Your task to perform on an android device: set an alarm Image 0: 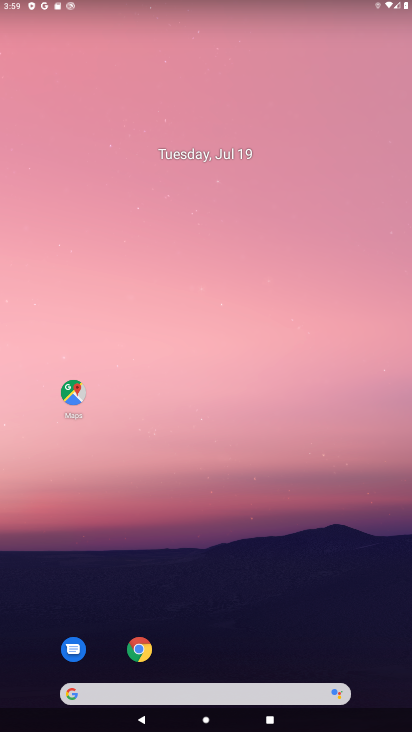
Step 0: drag from (284, 609) to (182, 100)
Your task to perform on an android device: set an alarm Image 1: 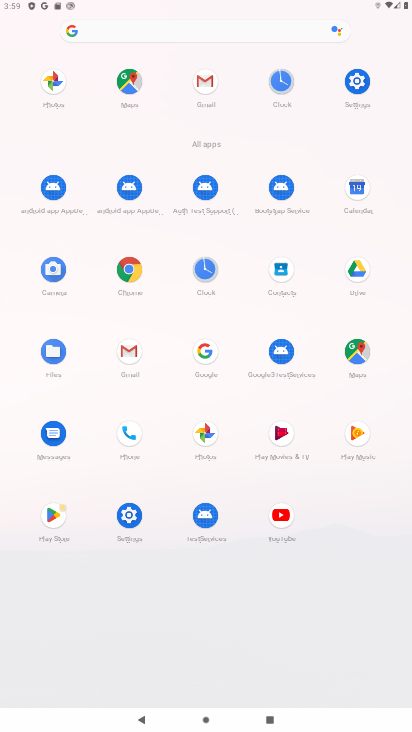
Step 1: click (286, 83)
Your task to perform on an android device: set an alarm Image 2: 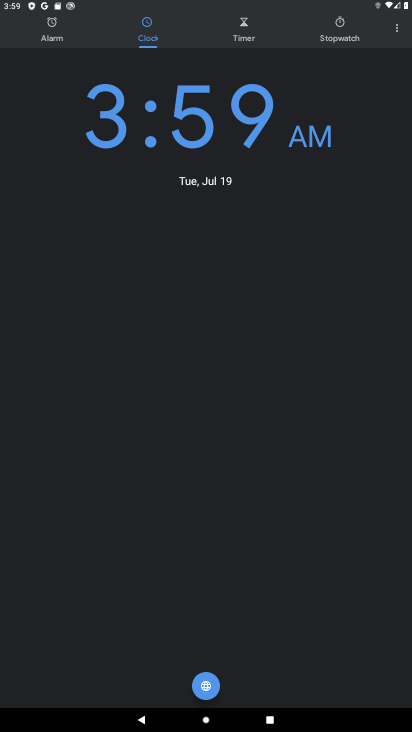
Step 2: click (52, 30)
Your task to perform on an android device: set an alarm Image 3: 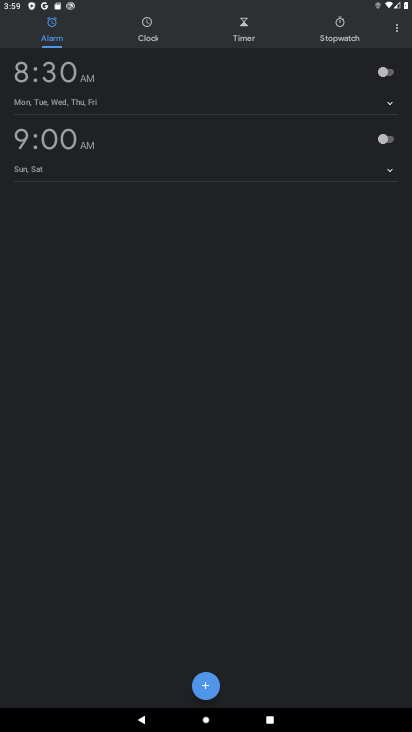
Step 3: click (207, 686)
Your task to perform on an android device: set an alarm Image 4: 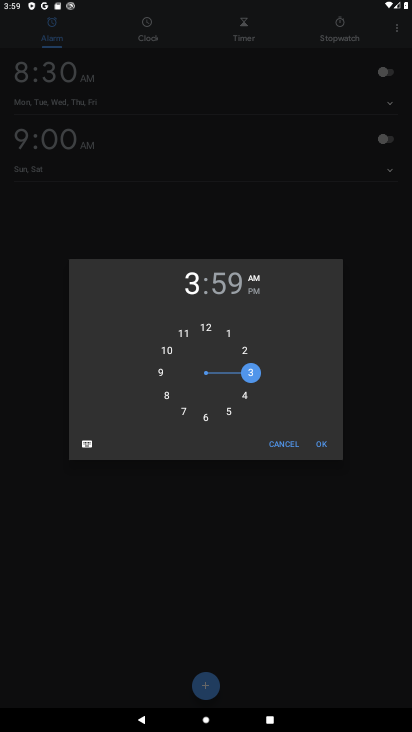
Step 4: click (325, 450)
Your task to perform on an android device: set an alarm Image 5: 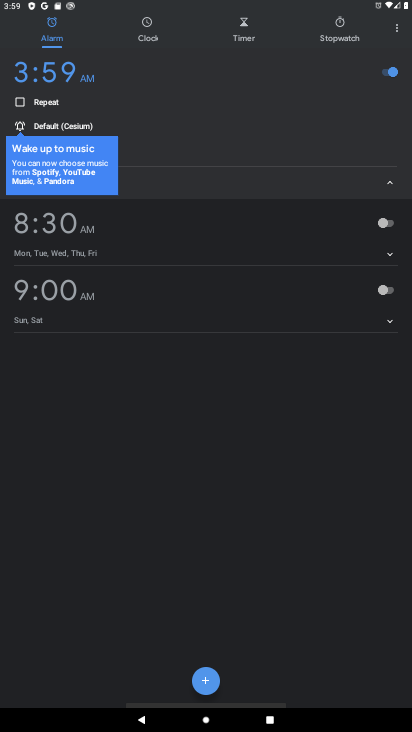
Step 5: task complete